Your task to perform on an android device: Show me productivity apps on the Play Store Image 0: 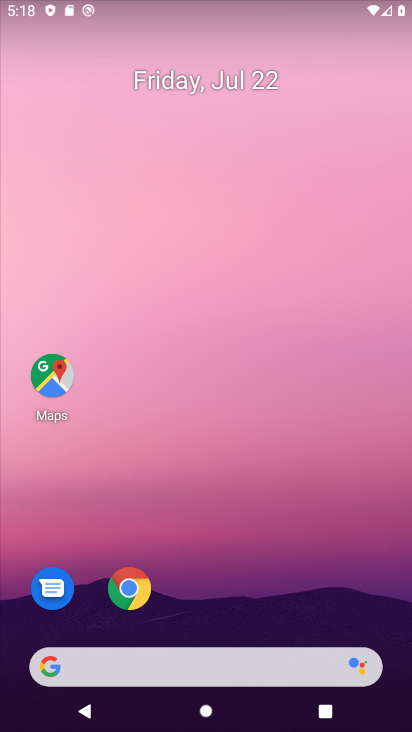
Step 0: drag from (249, 488) to (246, 204)
Your task to perform on an android device: Show me productivity apps on the Play Store Image 1: 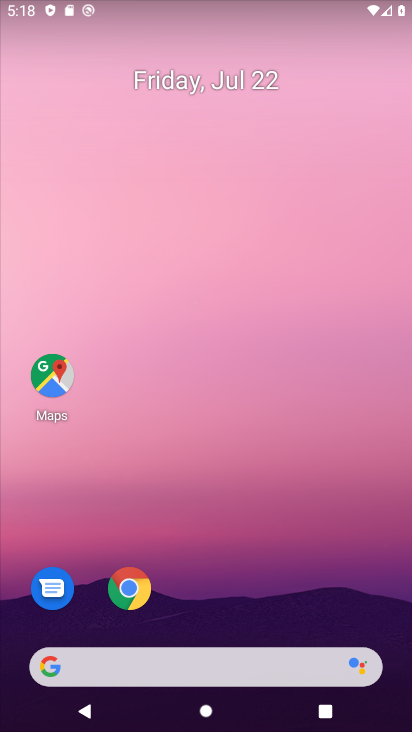
Step 1: drag from (274, 581) to (329, 245)
Your task to perform on an android device: Show me productivity apps on the Play Store Image 2: 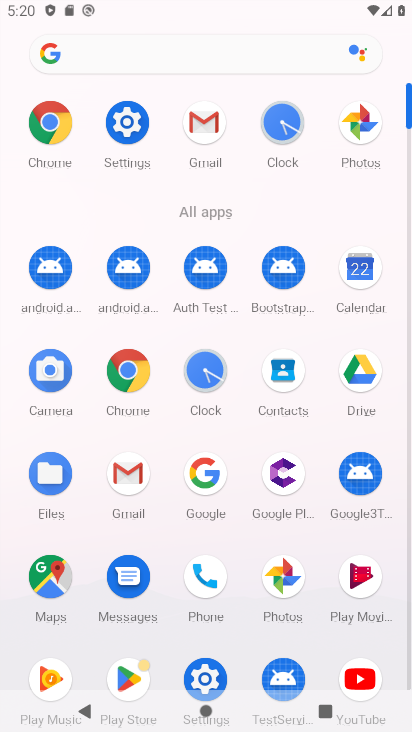
Step 2: click (115, 673)
Your task to perform on an android device: Show me productivity apps on the Play Store Image 3: 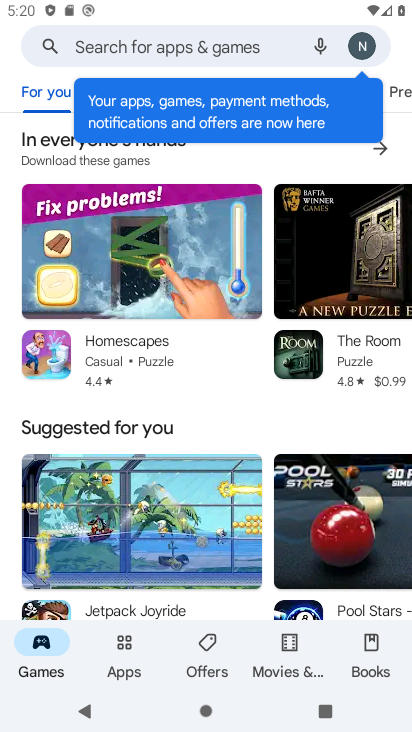
Step 3: task complete